Your task to perform on an android device: How much does a 3 bedroom apartment rent for in Philadelphia? Image 0: 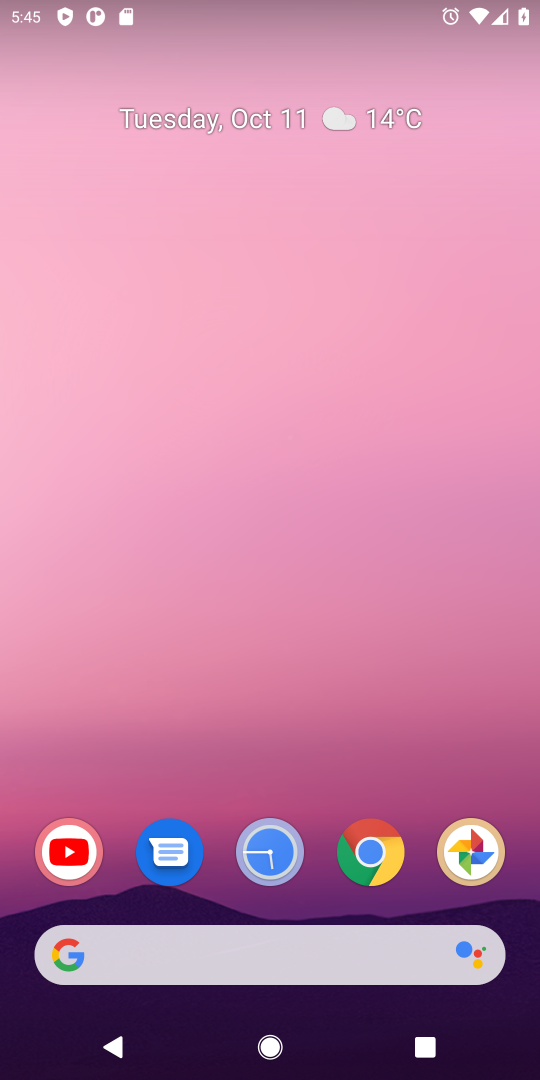
Step 0: click (389, 848)
Your task to perform on an android device: How much does a 3 bedroom apartment rent for in Philadelphia? Image 1: 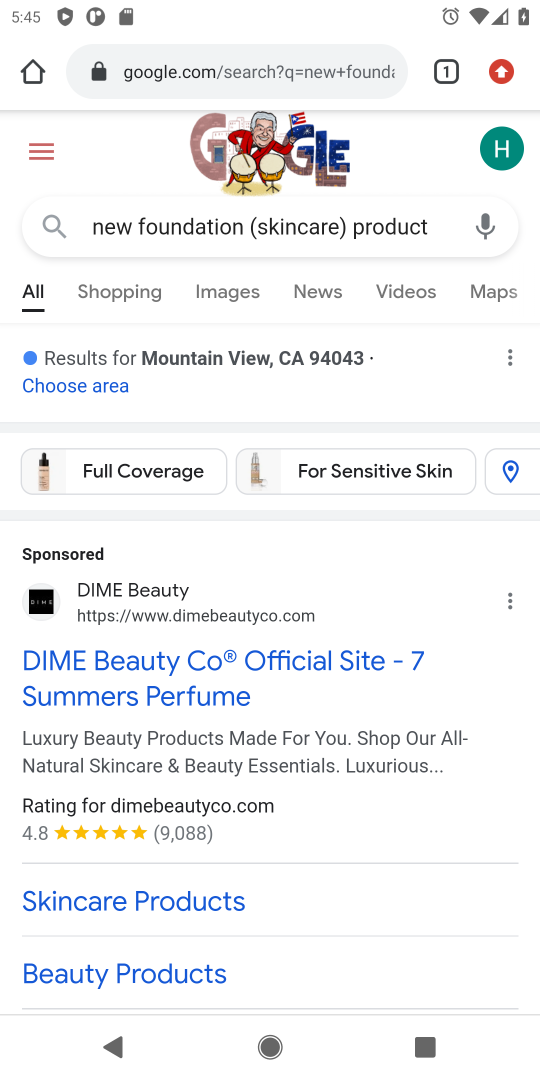
Step 1: drag from (496, 1067) to (515, 589)
Your task to perform on an android device: How much does a 3 bedroom apartment rent for in Philadelphia? Image 2: 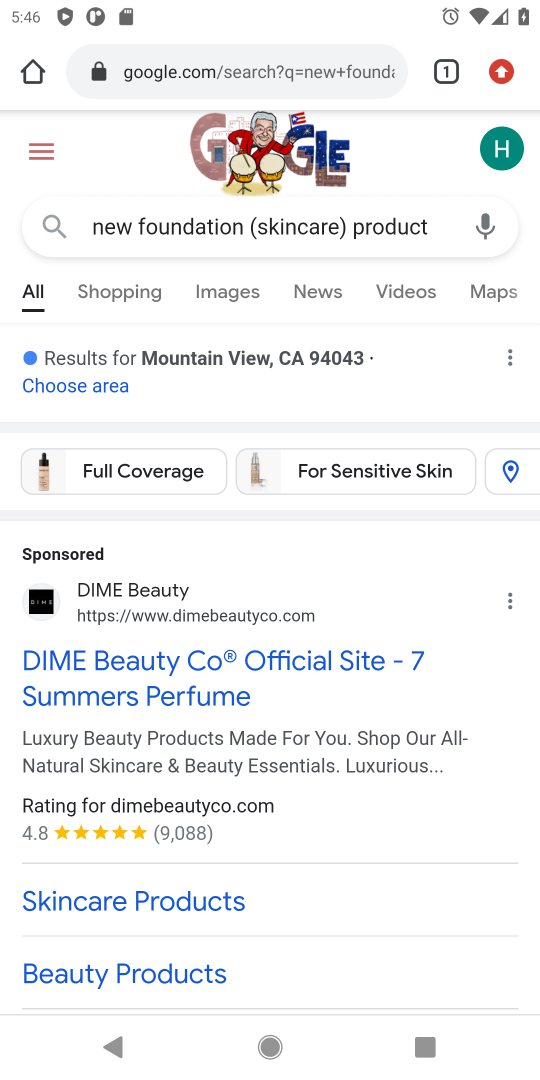
Step 2: click (263, 68)
Your task to perform on an android device: How much does a 3 bedroom apartment rent for in Philadelphia? Image 3: 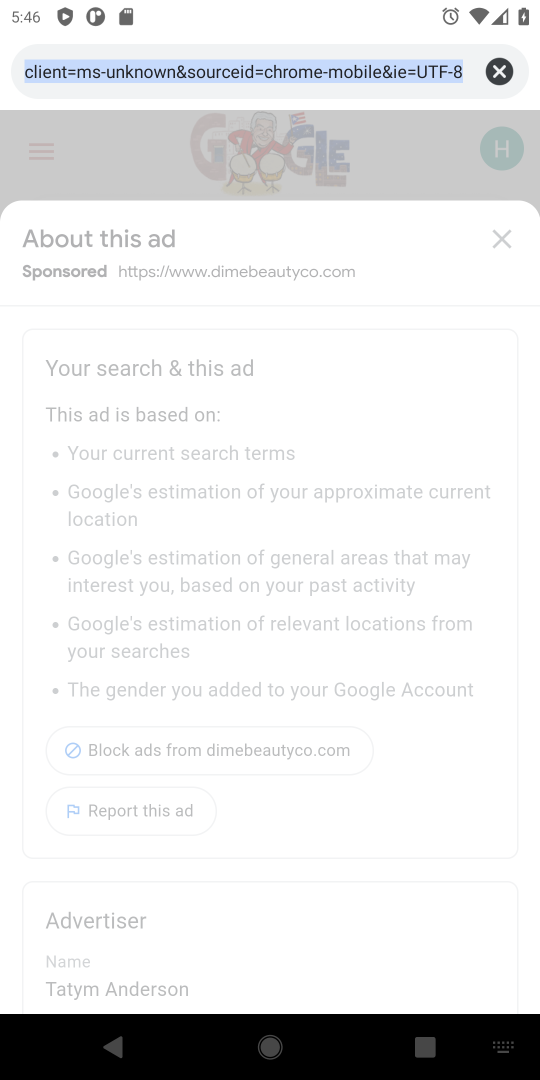
Step 3: type "3 bedroom apartment rent for in Philadelphia?"
Your task to perform on an android device: How much does a 3 bedroom apartment rent for in Philadelphia? Image 4: 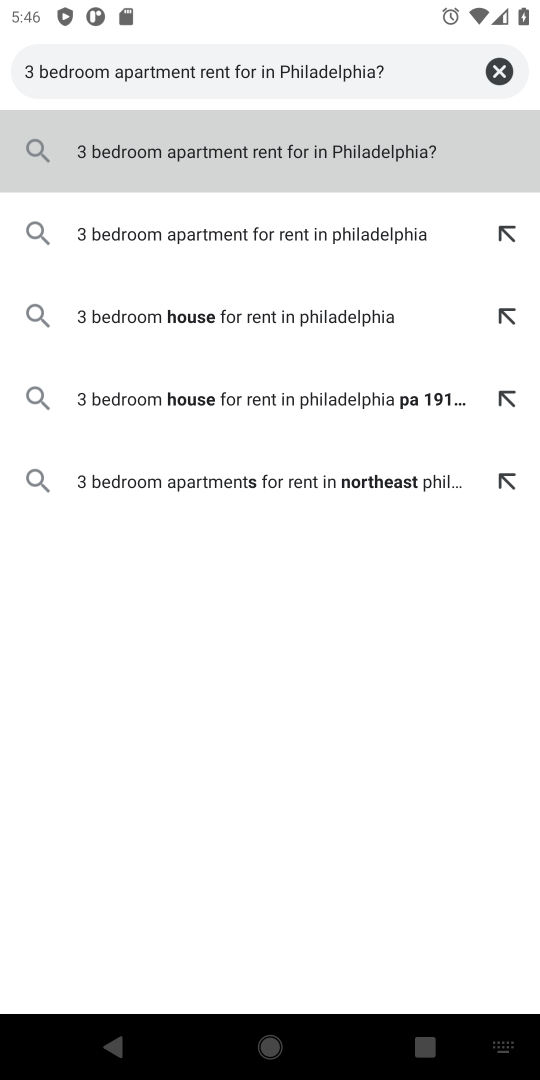
Step 4: click (364, 158)
Your task to perform on an android device: How much does a 3 bedroom apartment rent for in Philadelphia? Image 5: 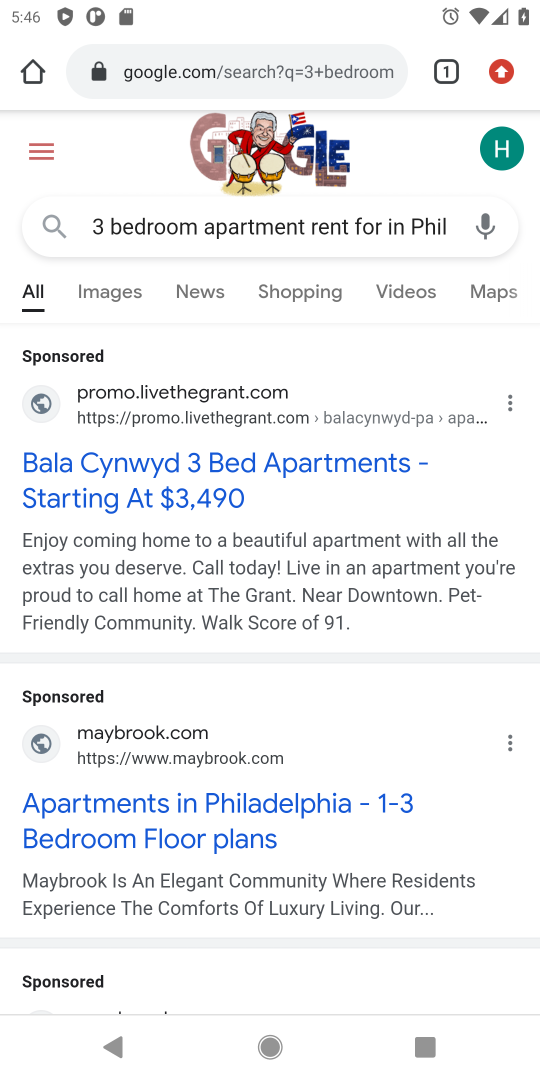
Step 5: drag from (368, 718) to (401, 241)
Your task to perform on an android device: How much does a 3 bedroom apartment rent for in Philadelphia? Image 6: 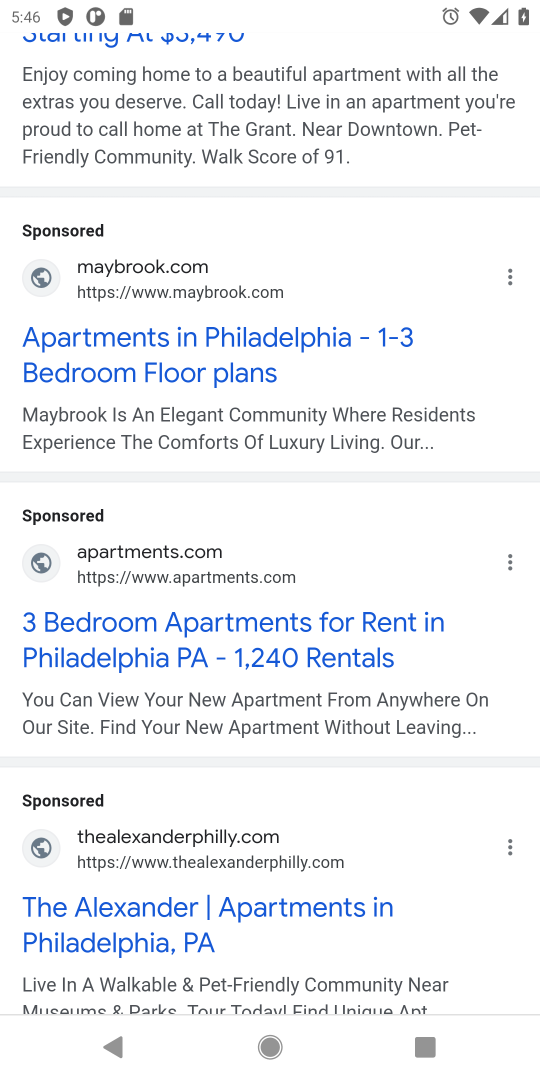
Step 6: drag from (435, 825) to (434, 366)
Your task to perform on an android device: How much does a 3 bedroom apartment rent for in Philadelphia? Image 7: 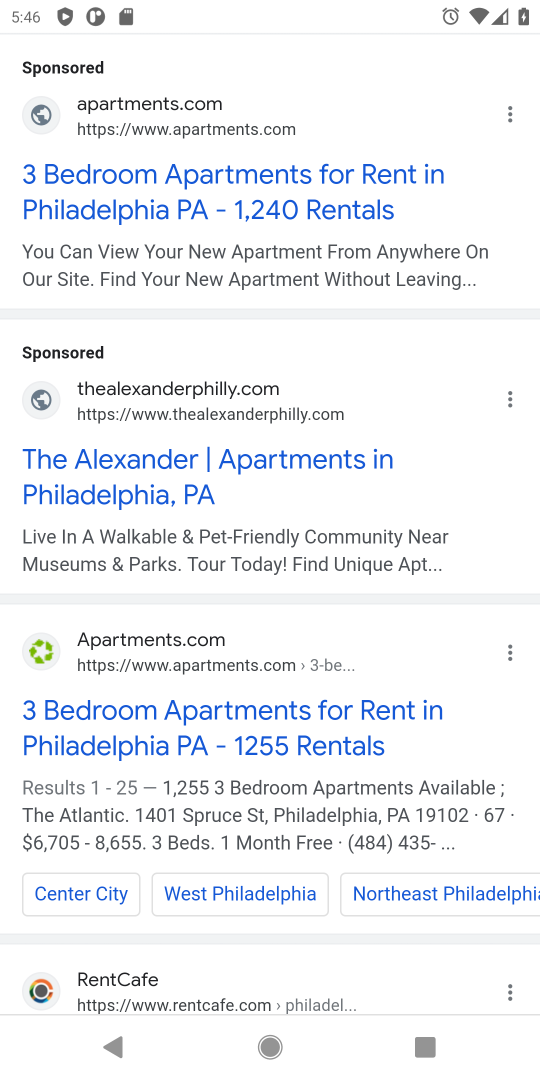
Step 7: click (200, 715)
Your task to perform on an android device: How much does a 3 bedroom apartment rent for in Philadelphia? Image 8: 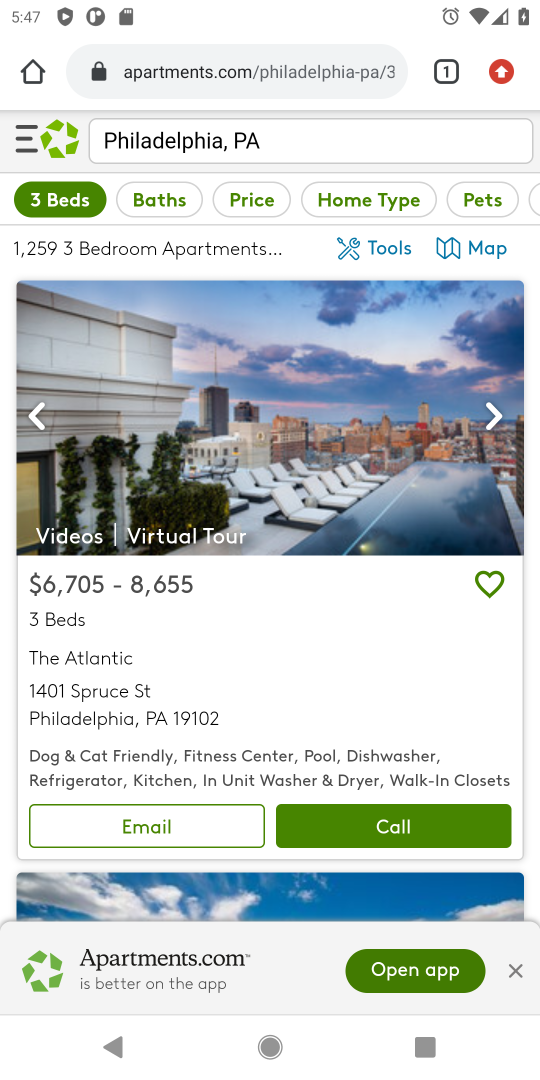
Step 8: task complete